Your task to perform on an android device: Open the stopwatch Image 0: 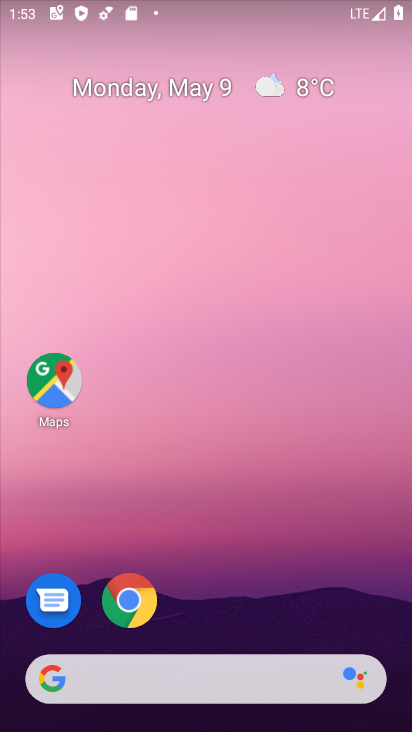
Step 0: press home button
Your task to perform on an android device: Open the stopwatch Image 1: 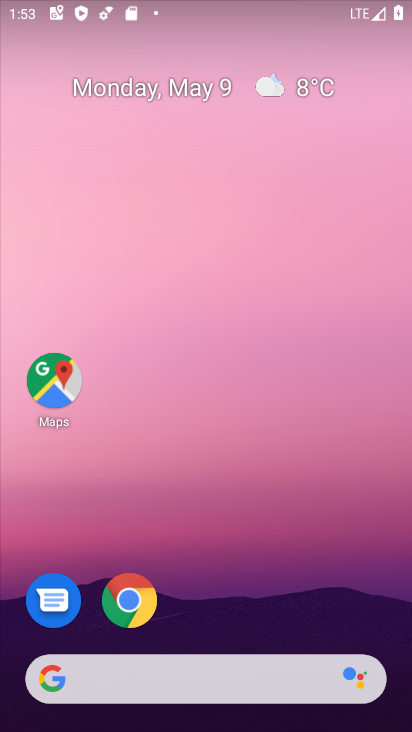
Step 1: drag from (226, 628) to (231, 250)
Your task to perform on an android device: Open the stopwatch Image 2: 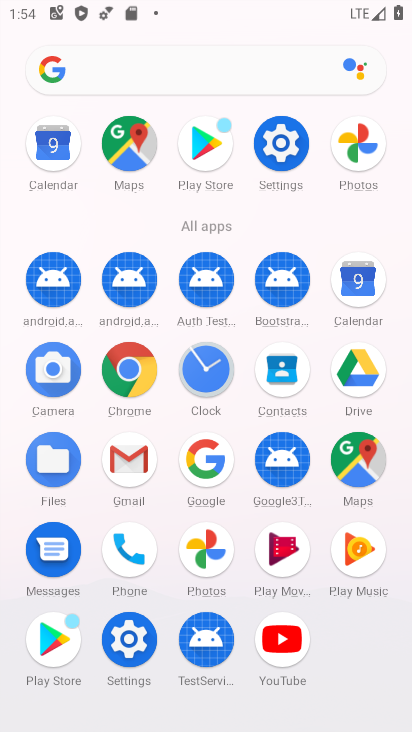
Step 2: click (206, 363)
Your task to perform on an android device: Open the stopwatch Image 3: 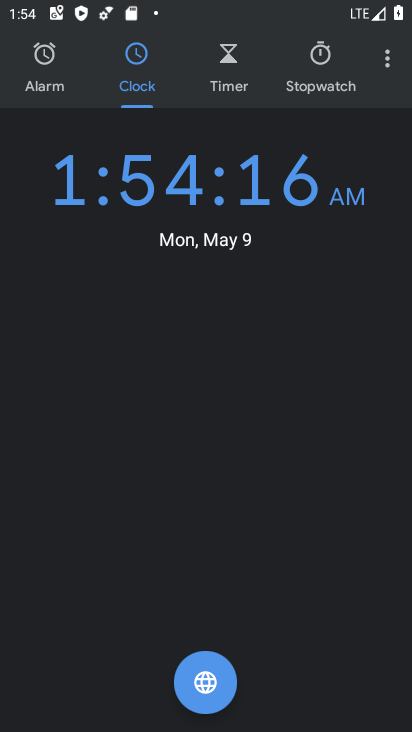
Step 3: click (308, 60)
Your task to perform on an android device: Open the stopwatch Image 4: 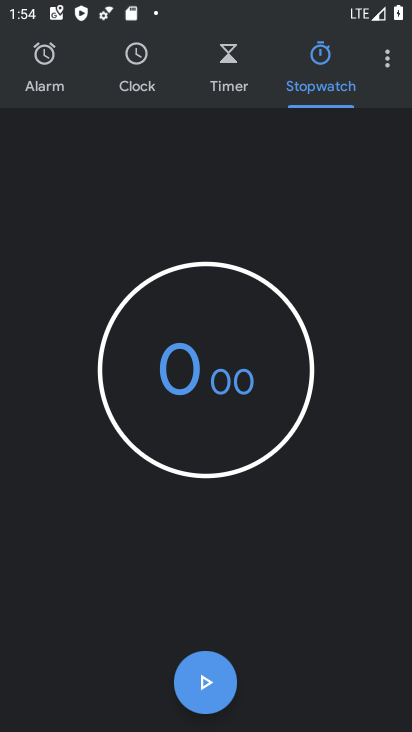
Step 4: click (209, 691)
Your task to perform on an android device: Open the stopwatch Image 5: 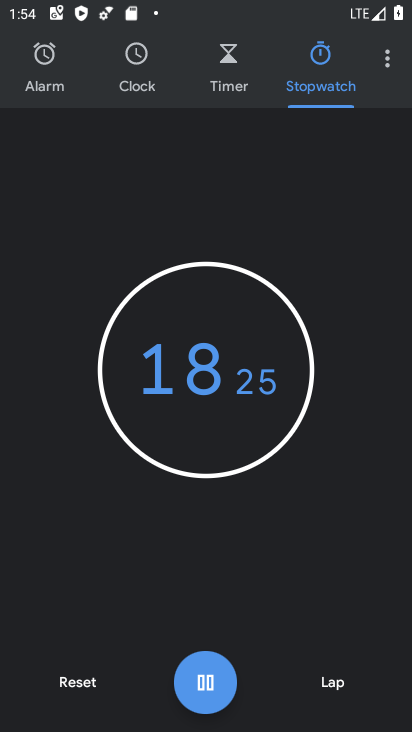
Step 5: task complete